Your task to perform on an android device: install app "AliExpress" Image 0: 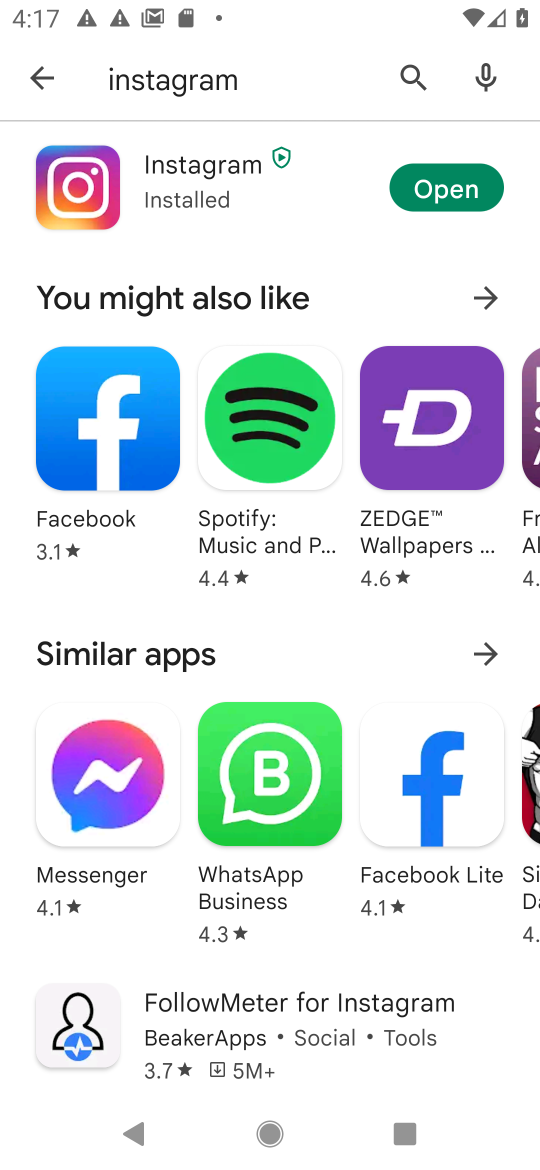
Step 0: click (411, 71)
Your task to perform on an android device: install app "AliExpress" Image 1: 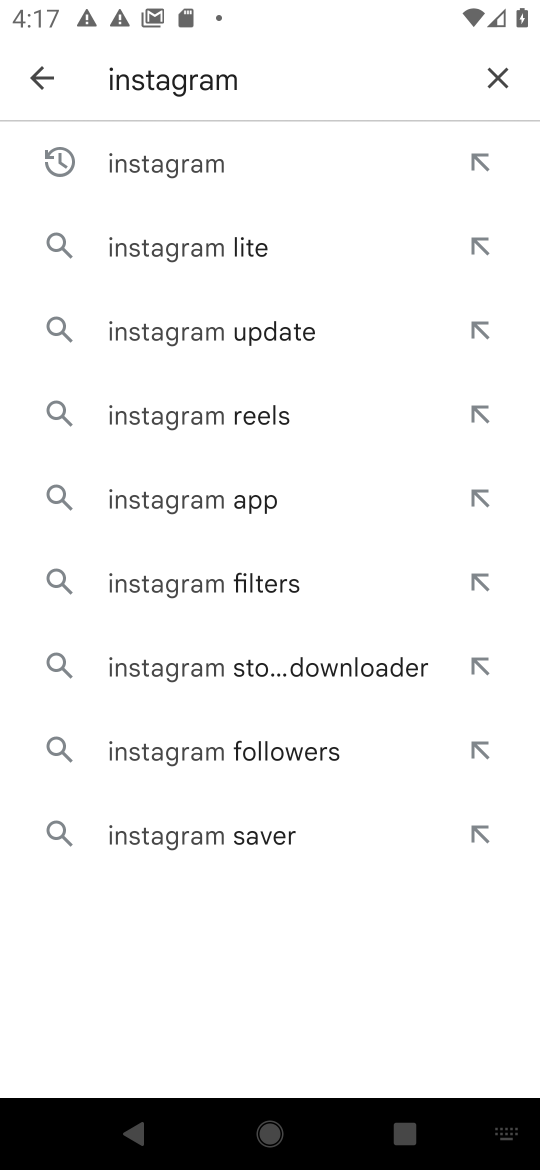
Step 1: click (500, 72)
Your task to perform on an android device: install app "AliExpress" Image 2: 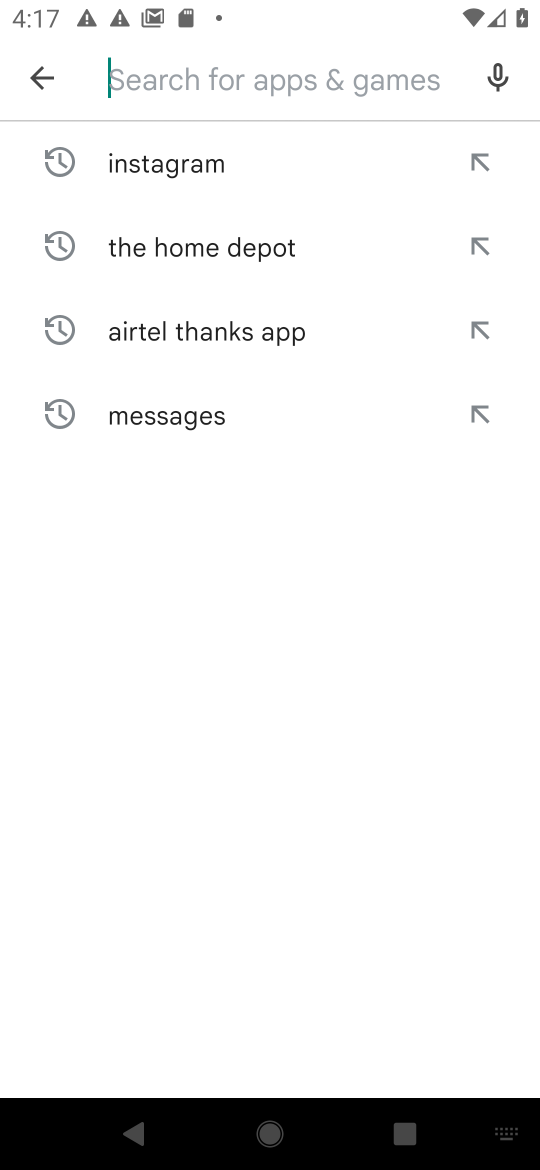
Step 2: click (268, 84)
Your task to perform on an android device: install app "AliExpress" Image 3: 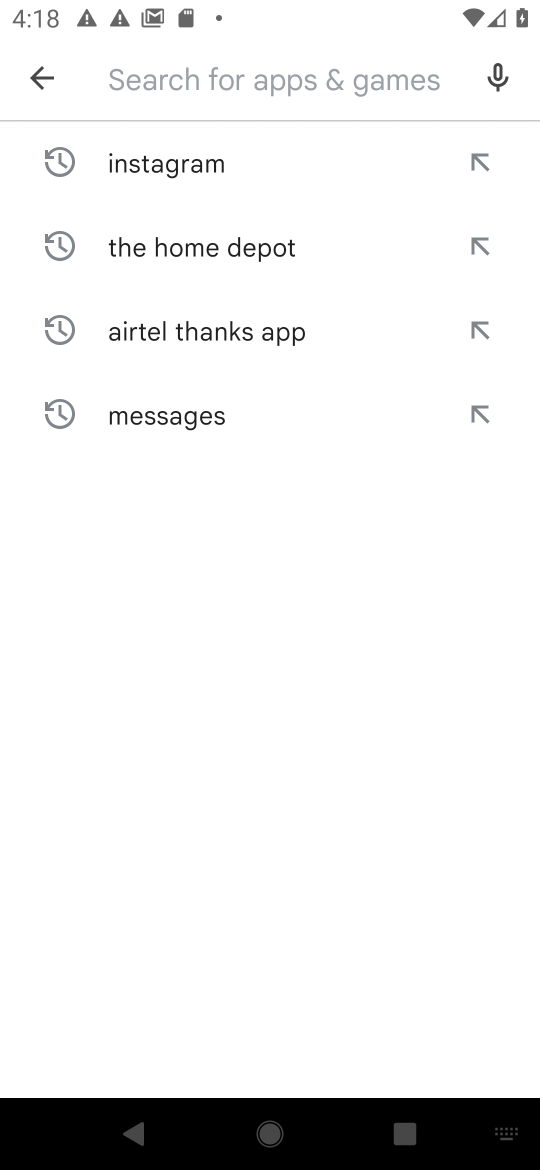
Step 3: type "AliExpress"
Your task to perform on an android device: install app "AliExpress" Image 4: 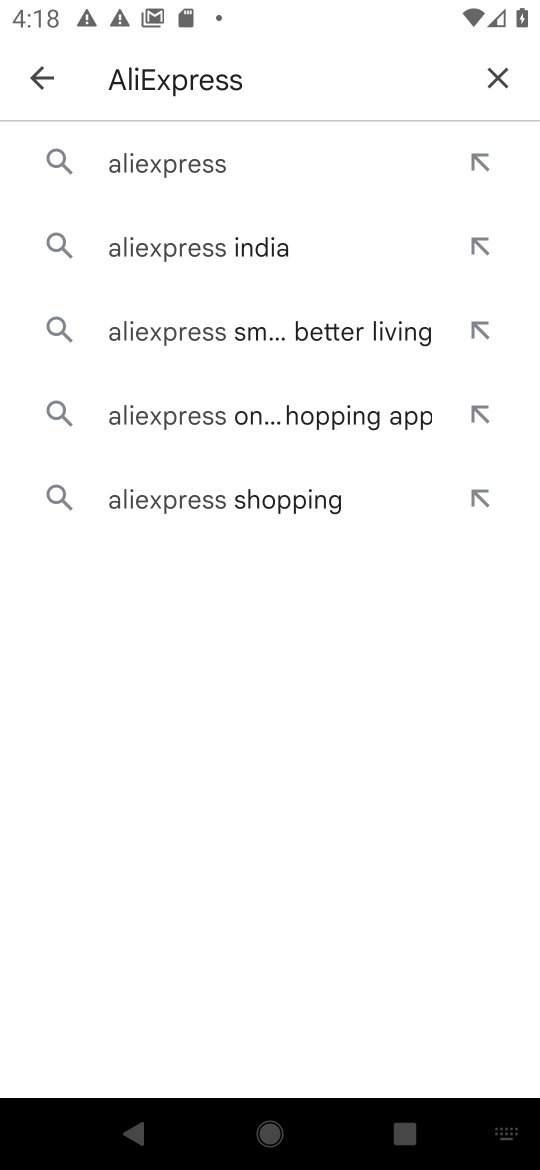
Step 4: click (202, 158)
Your task to perform on an android device: install app "AliExpress" Image 5: 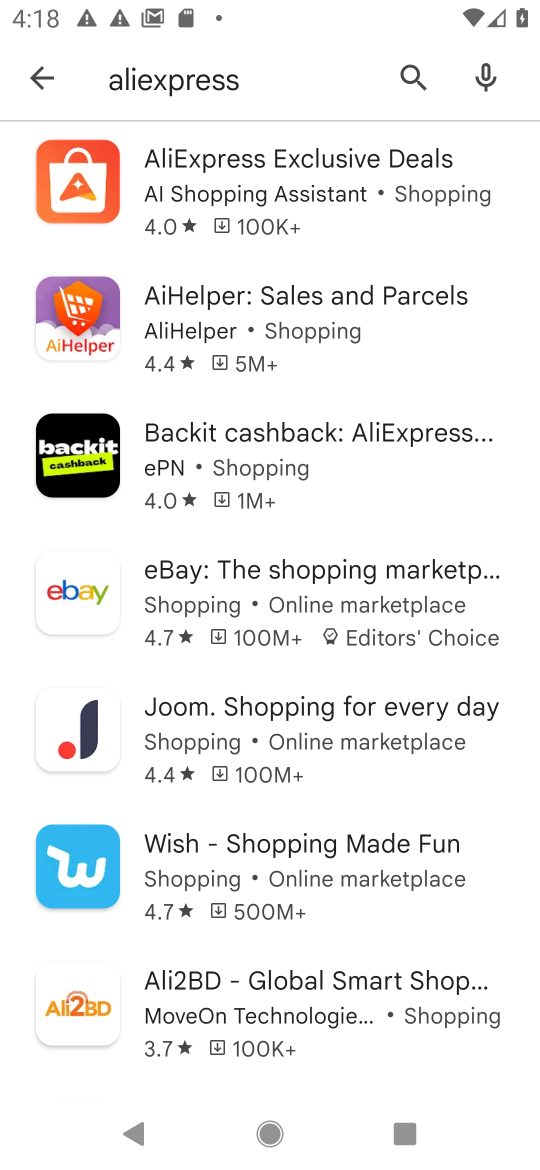
Step 5: click (256, 169)
Your task to perform on an android device: install app "AliExpress" Image 6: 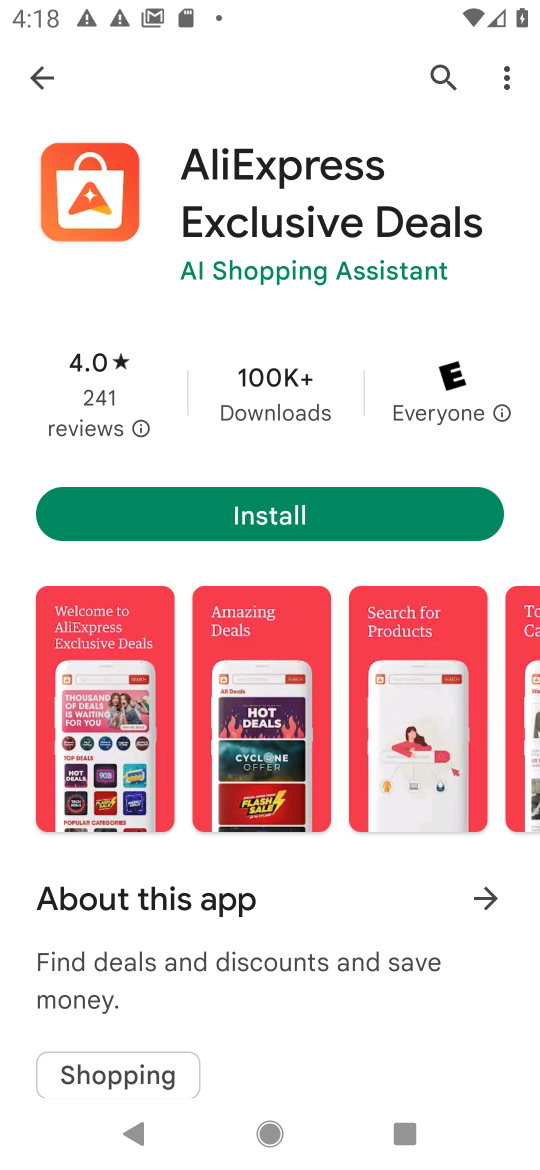
Step 6: click (288, 522)
Your task to perform on an android device: install app "AliExpress" Image 7: 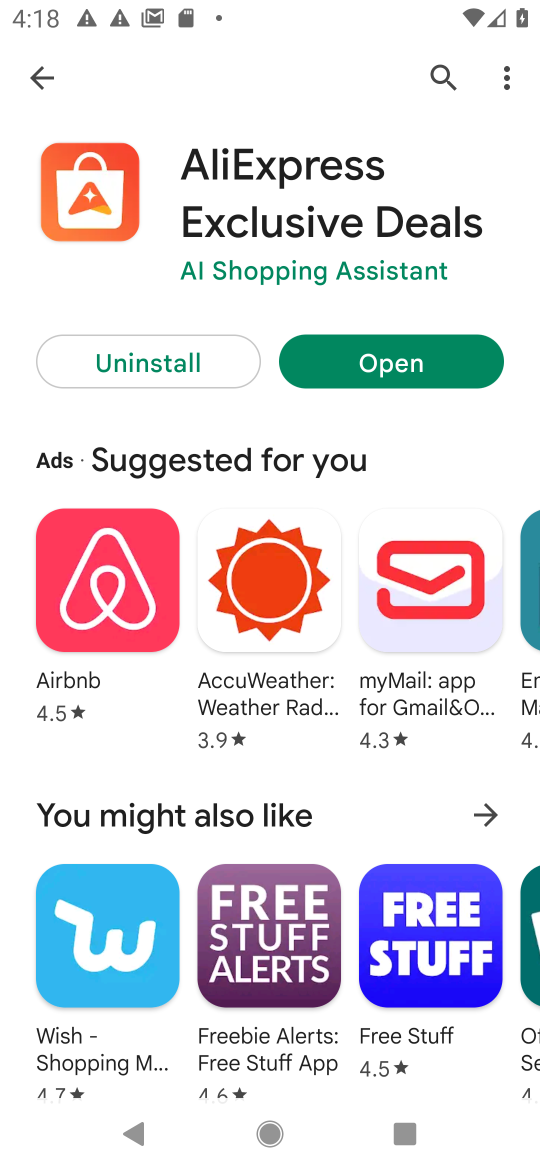
Step 7: task complete